Your task to perform on an android device: Go to network settings Image 0: 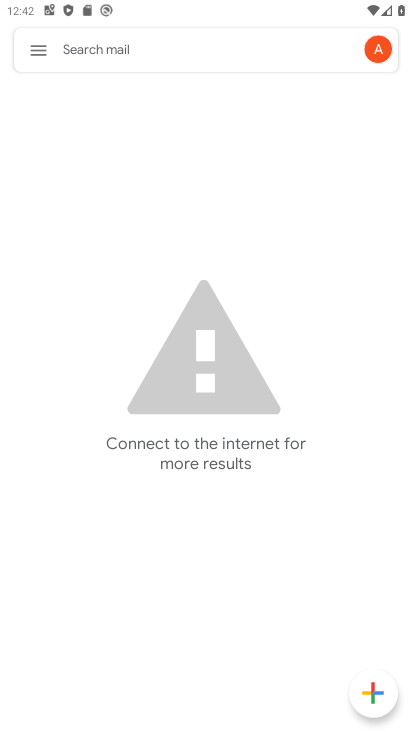
Step 0: press home button
Your task to perform on an android device: Go to network settings Image 1: 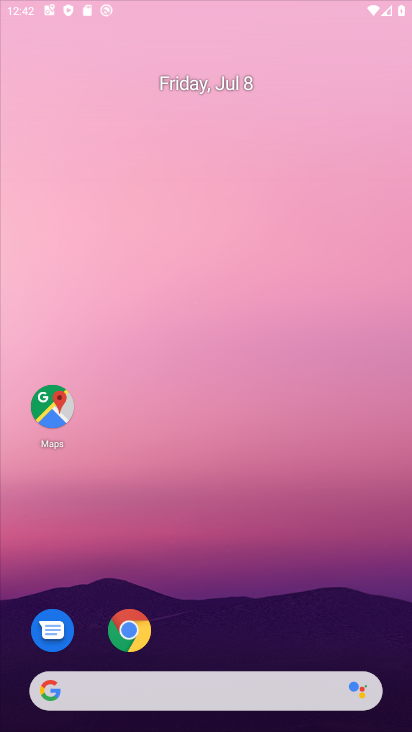
Step 1: drag from (373, 648) to (263, 16)
Your task to perform on an android device: Go to network settings Image 2: 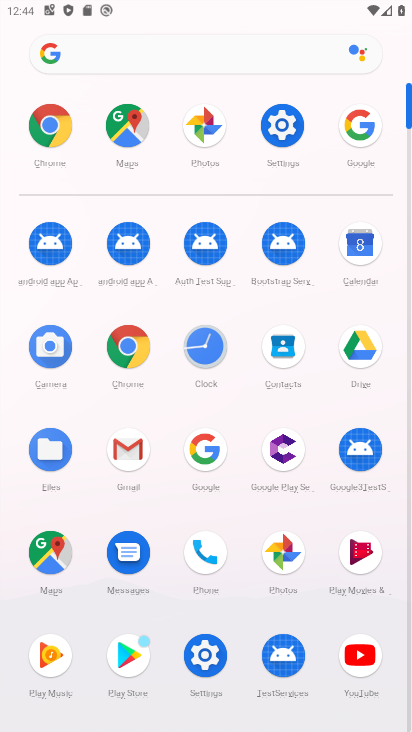
Step 2: click (204, 652)
Your task to perform on an android device: Go to network settings Image 3: 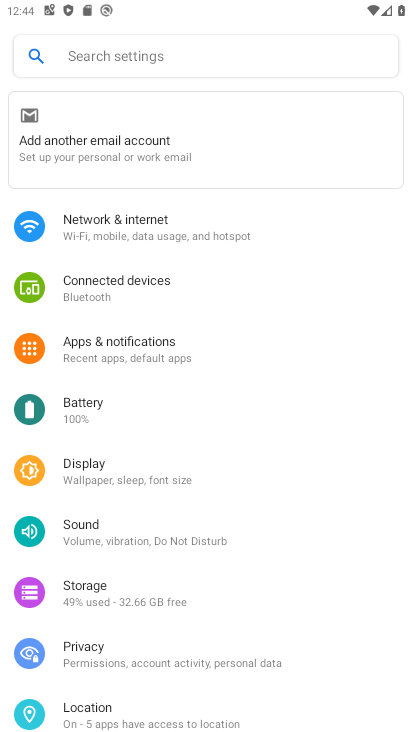
Step 3: click (114, 229)
Your task to perform on an android device: Go to network settings Image 4: 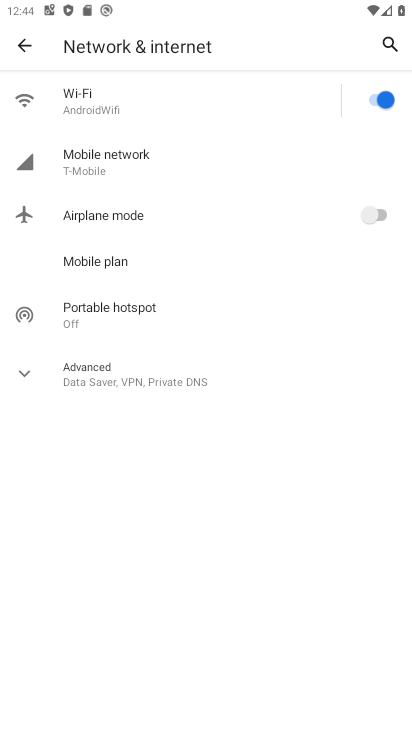
Step 4: task complete